Your task to perform on an android device: open device folders in google photos Image 0: 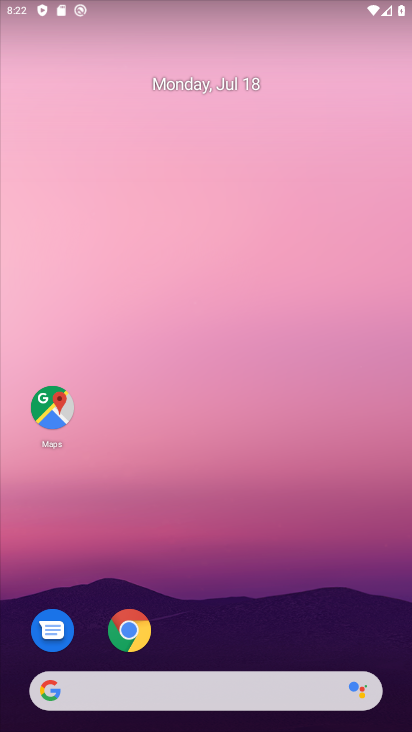
Step 0: drag from (335, 646) to (252, 171)
Your task to perform on an android device: open device folders in google photos Image 1: 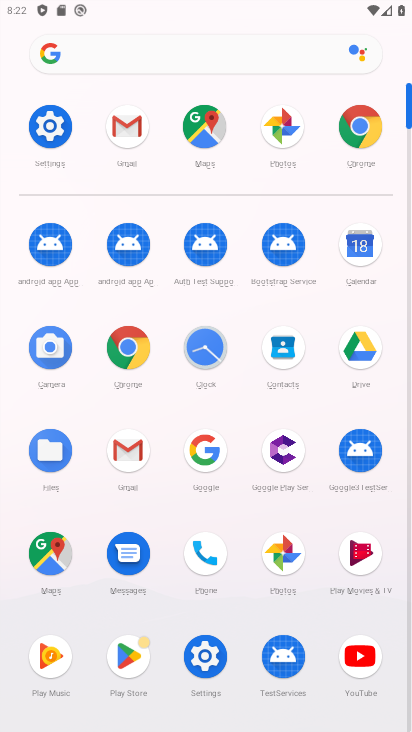
Step 1: click (287, 542)
Your task to perform on an android device: open device folders in google photos Image 2: 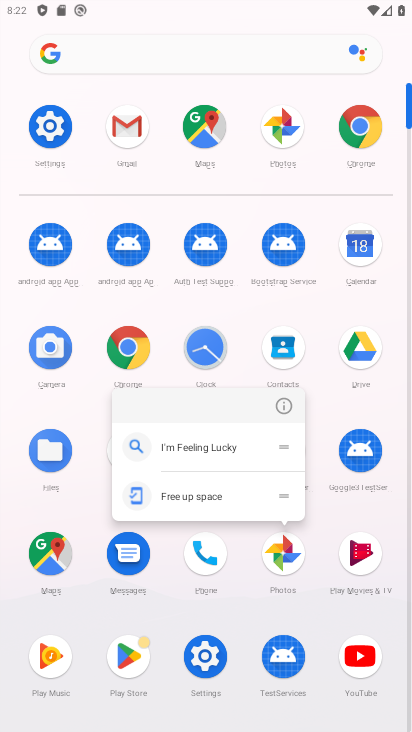
Step 2: click (284, 543)
Your task to perform on an android device: open device folders in google photos Image 3: 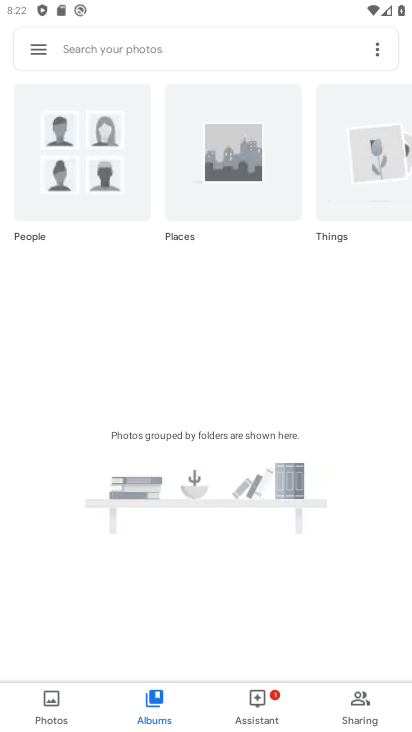
Step 3: click (157, 708)
Your task to perform on an android device: open device folders in google photos Image 4: 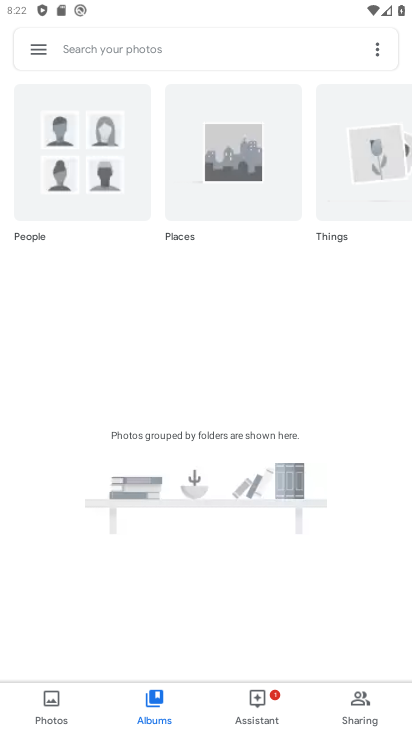
Step 4: click (59, 707)
Your task to perform on an android device: open device folders in google photos Image 5: 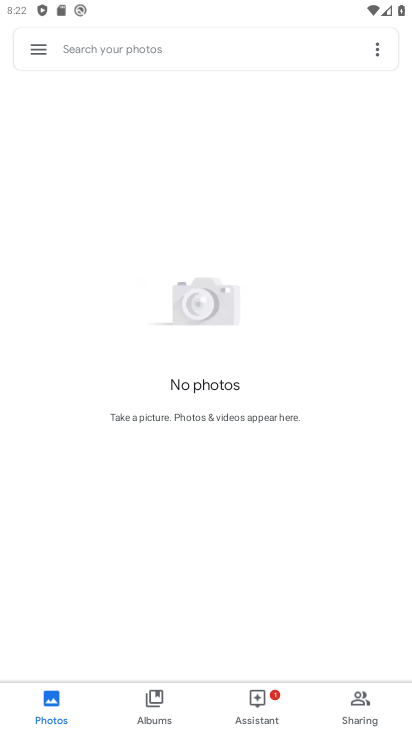
Step 5: click (160, 700)
Your task to perform on an android device: open device folders in google photos Image 6: 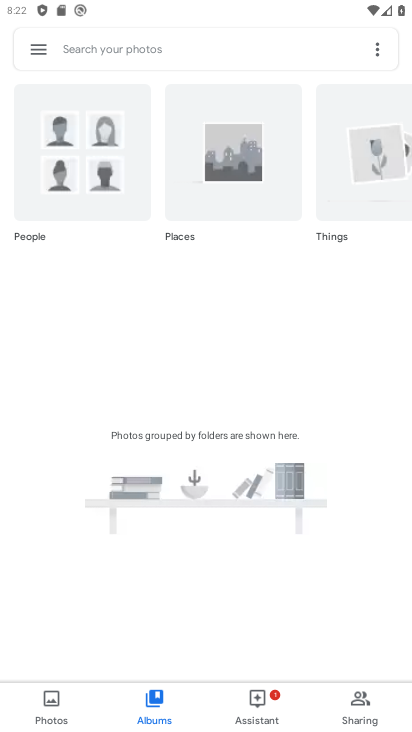
Step 6: task complete